Your task to perform on an android device: turn on wifi Image 0: 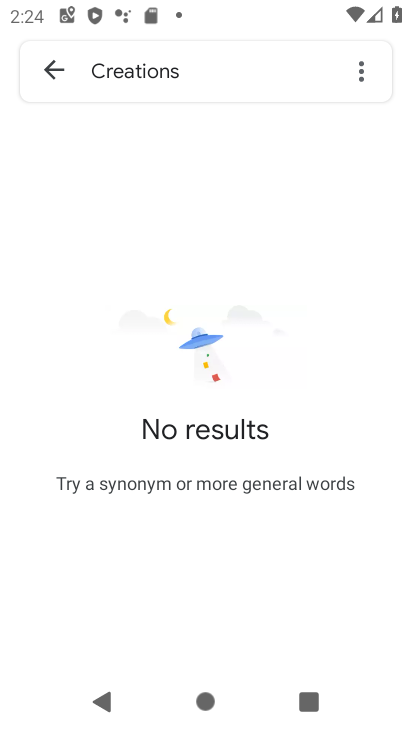
Step 0: press home button
Your task to perform on an android device: turn on wifi Image 1: 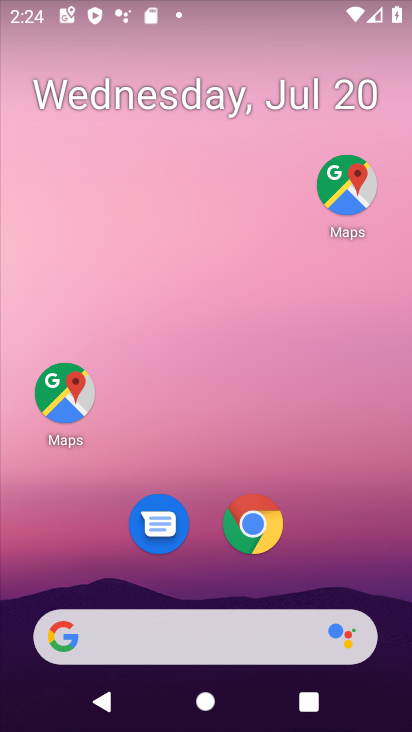
Step 1: drag from (322, 536) to (322, 35)
Your task to perform on an android device: turn on wifi Image 2: 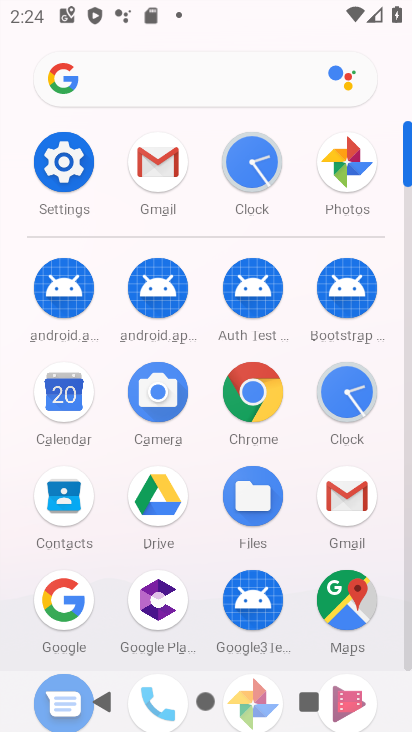
Step 2: click (52, 162)
Your task to perform on an android device: turn on wifi Image 3: 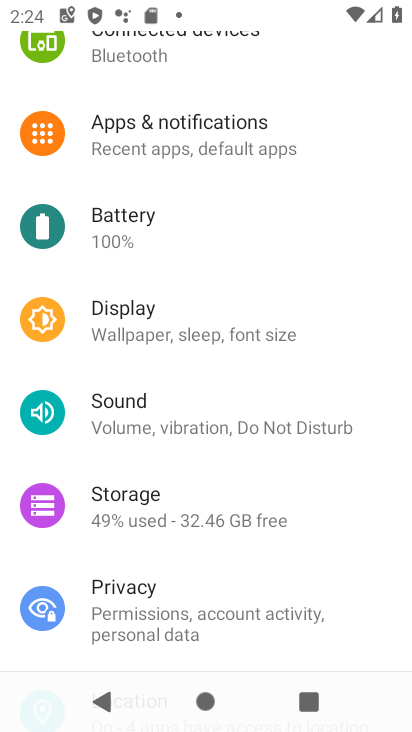
Step 3: drag from (208, 198) to (227, 513)
Your task to perform on an android device: turn on wifi Image 4: 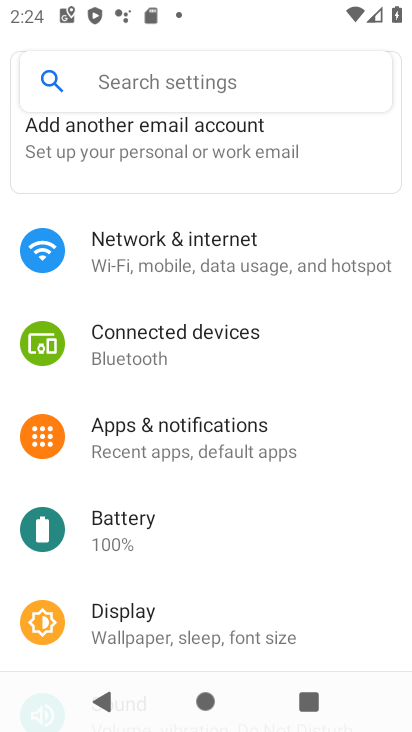
Step 4: click (231, 258)
Your task to perform on an android device: turn on wifi Image 5: 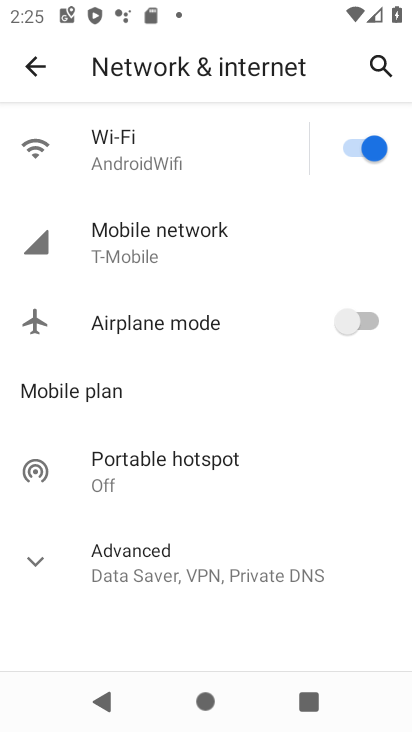
Step 5: task complete